Your task to perform on an android device: snooze an email in the gmail app Image 0: 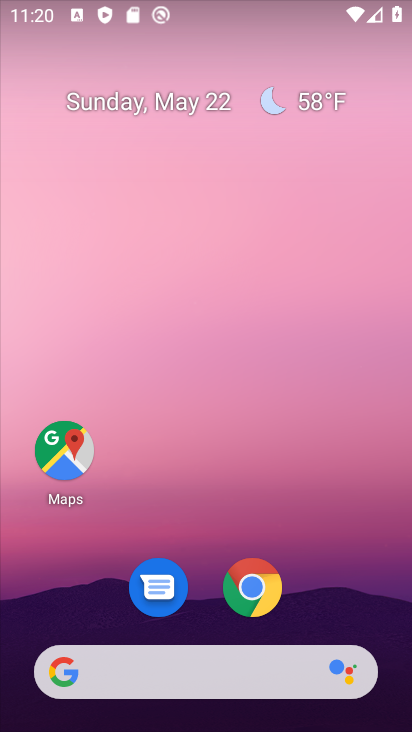
Step 0: drag from (218, 489) to (233, 0)
Your task to perform on an android device: snooze an email in the gmail app Image 1: 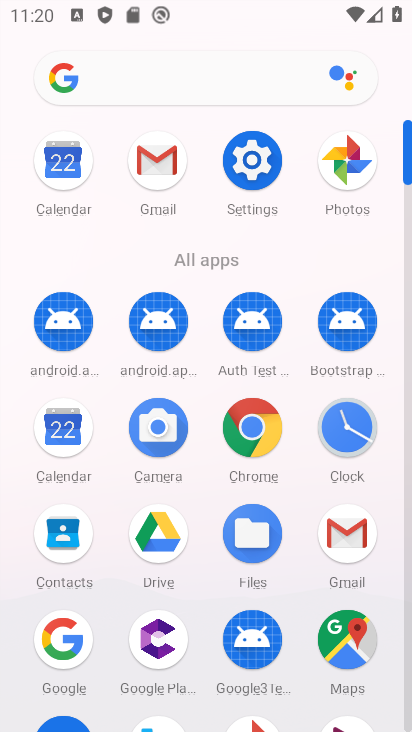
Step 1: click (156, 160)
Your task to perform on an android device: snooze an email in the gmail app Image 2: 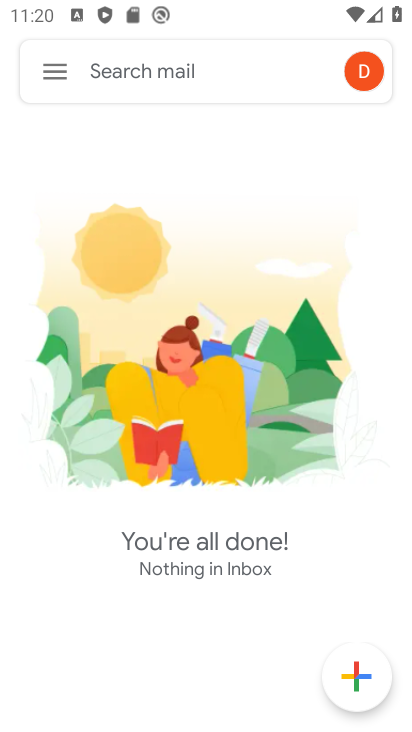
Step 2: click (60, 68)
Your task to perform on an android device: snooze an email in the gmail app Image 3: 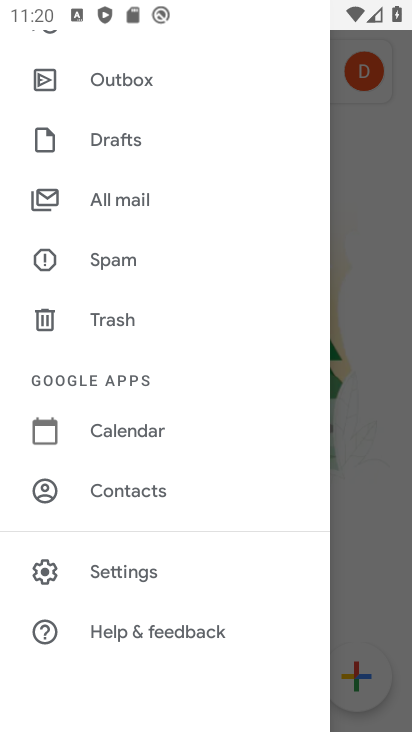
Step 3: click (104, 196)
Your task to perform on an android device: snooze an email in the gmail app Image 4: 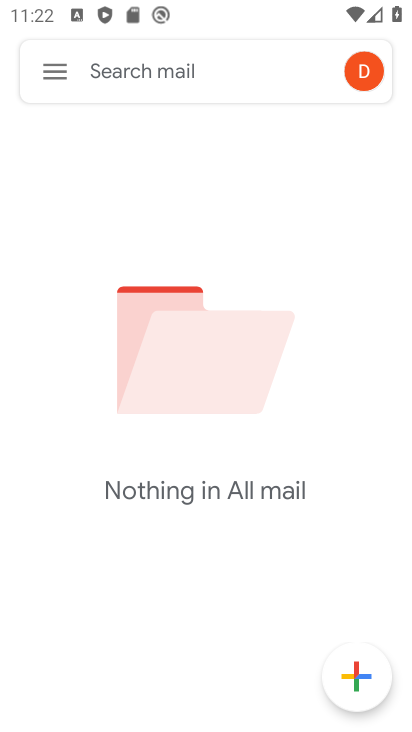
Step 4: task complete